Your task to perform on an android device: turn off sleep mode Image 0: 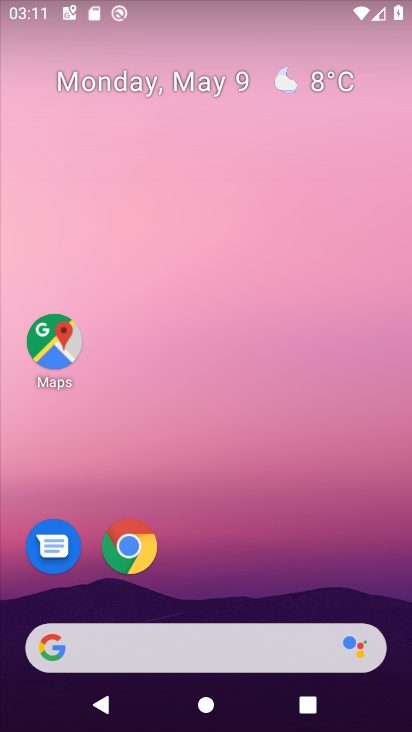
Step 0: drag from (265, 498) to (222, 29)
Your task to perform on an android device: turn off sleep mode Image 1: 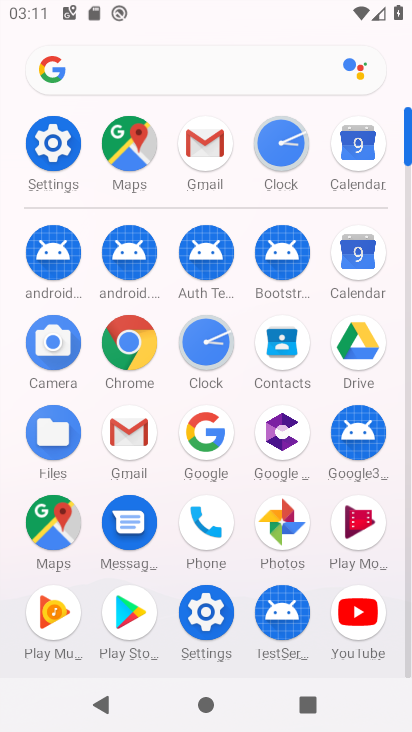
Step 1: click (54, 147)
Your task to perform on an android device: turn off sleep mode Image 2: 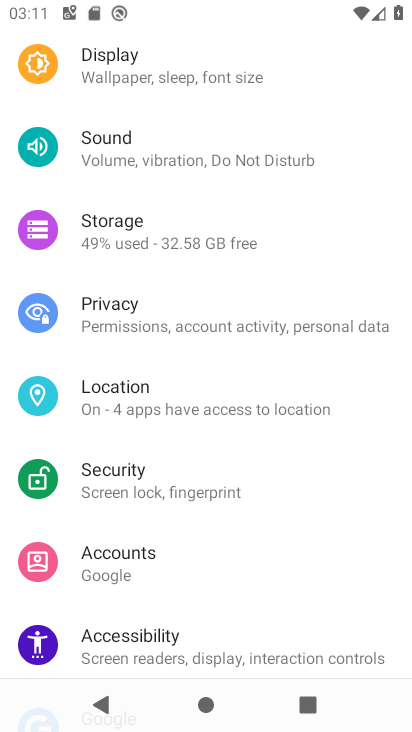
Step 2: click (184, 64)
Your task to perform on an android device: turn off sleep mode Image 3: 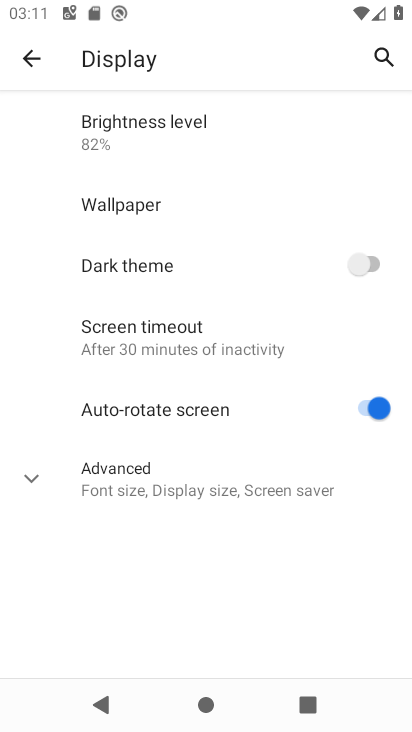
Step 3: click (30, 472)
Your task to perform on an android device: turn off sleep mode Image 4: 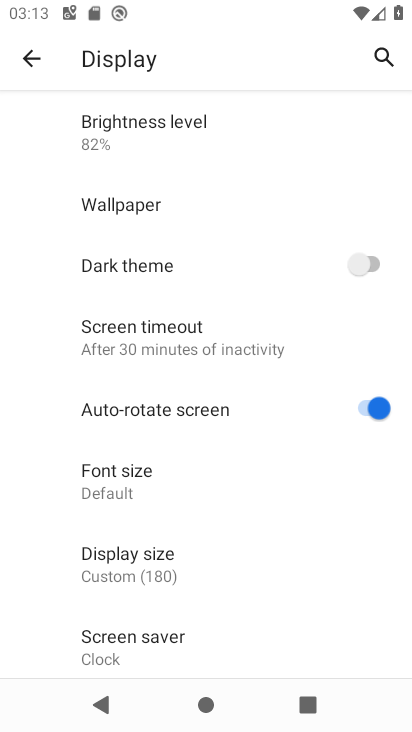
Step 4: task complete